Your task to perform on an android device: Open Maps and search for coffee Image 0: 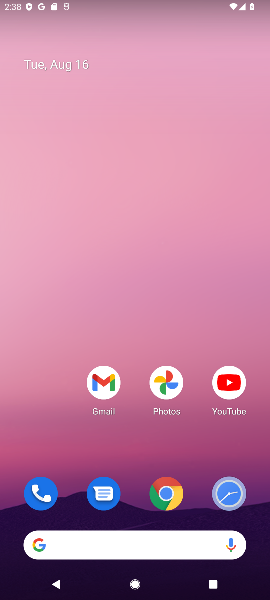
Step 0: press home button
Your task to perform on an android device: Open Maps and search for coffee Image 1: 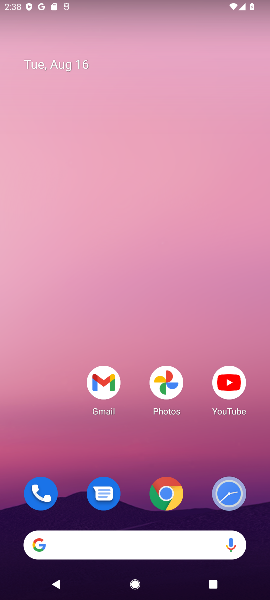
Step 1: drag from (64, 457) to (89, 56)
Your task to perform on an android device: Open Maps and search for coffee Image 2: 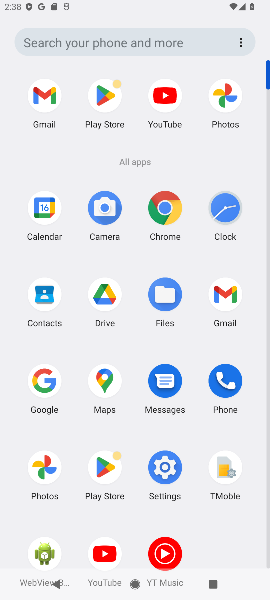
Step 2: click (105, 381)
Your task to perform on an android device: Open Maps and search for coffee Image 3: 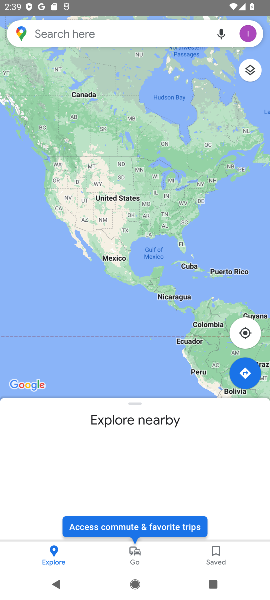
Step 3: click (146, 29)
Your task to perform on an android device: Open Maps and search for coffee Image 4: 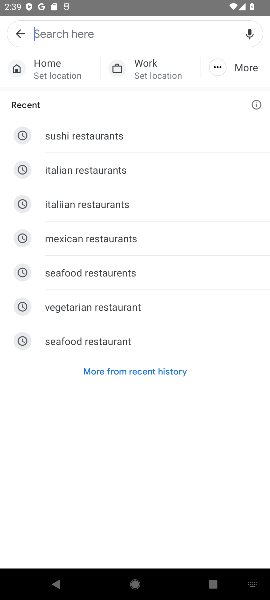
Step 4: press enter
Your task to perform on an android device: Open Maps and search for coffee Image 5: 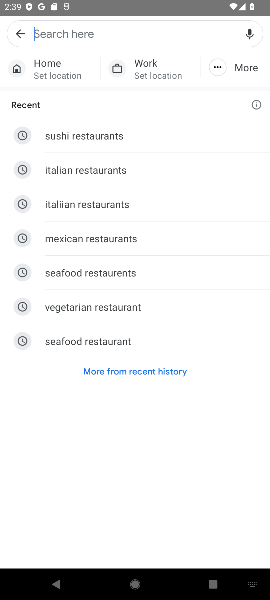
Step 5: type "coffee"
Your task to perform on an android device: Open Maps and search for coffee Image 6: 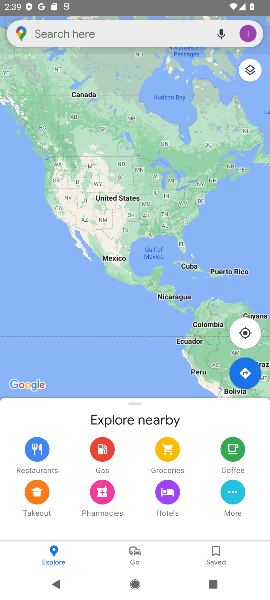
Step 6: click (98, 33)
Your task to perform on an android device: Open Maps and search for coffee Image 7: 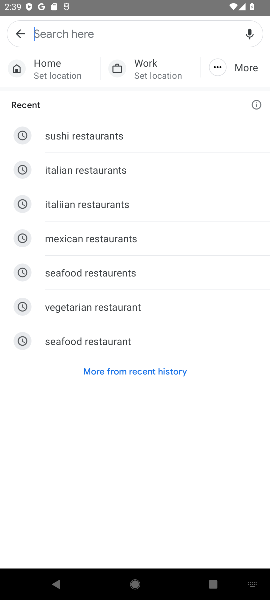
Step 7: type "coffee"
Your task to perform on an android device: Open Maps and search for coffee Image 8: 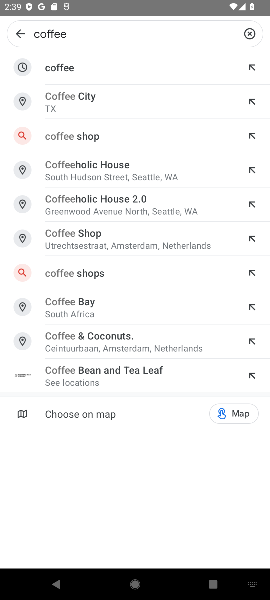
Step 8: click (100, 133)
Your task to perform on an android device: Open Maps and search for coffee Image 9: 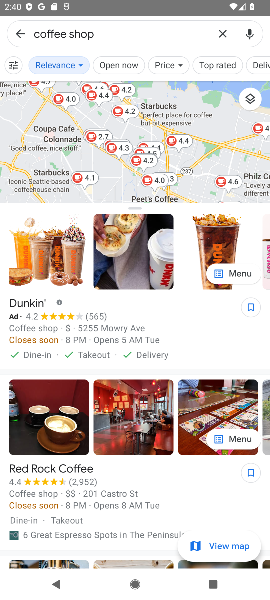
Step 9: task complete